Your task to perform on an android device: choose inbox layout in the gmail app Image 0: 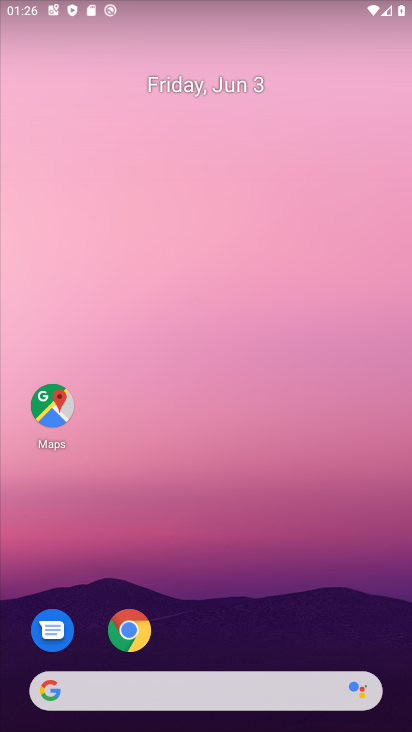
Step 0: drag from (232, 629) to (154, 138)
Your task to perform on an android device: choose inbox layout in the gmail app Image 1: 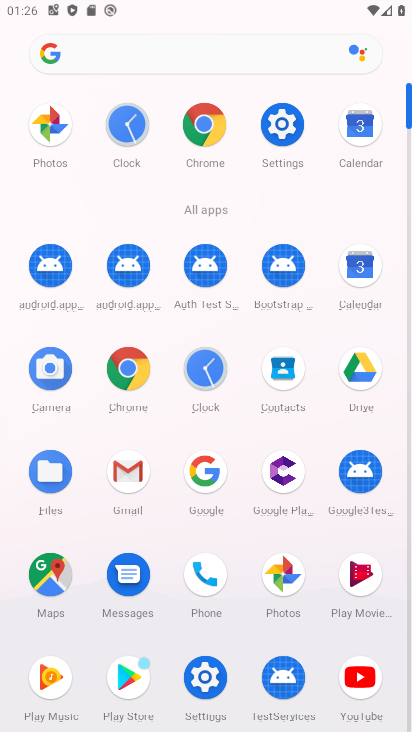
Step 1: click (143, 472)
Your task to perform on an android device: choose inbox layout in the gmail app Image 2: 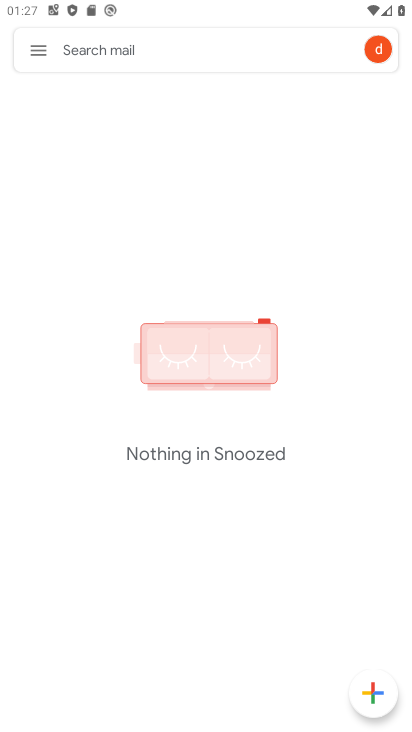
Step 2: click (46, 51)
Your task to perform on an android device: choose inbox layout in the gmail app Image 3: 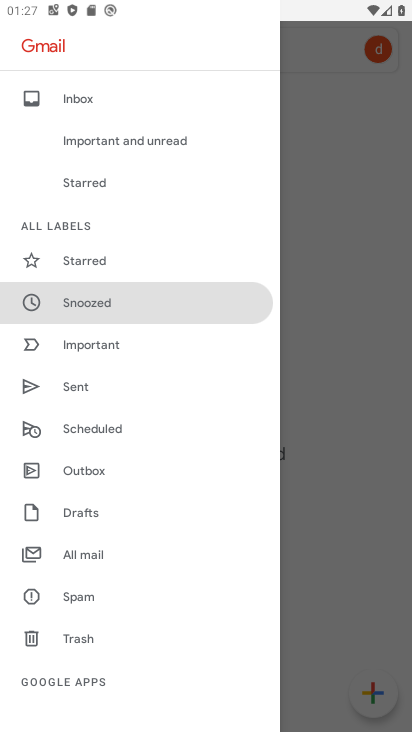
Step 3: drag from (120, 659) to (106, 307)
Your task to perform on an android device: choose inbox layout in the gmail app Image 4: 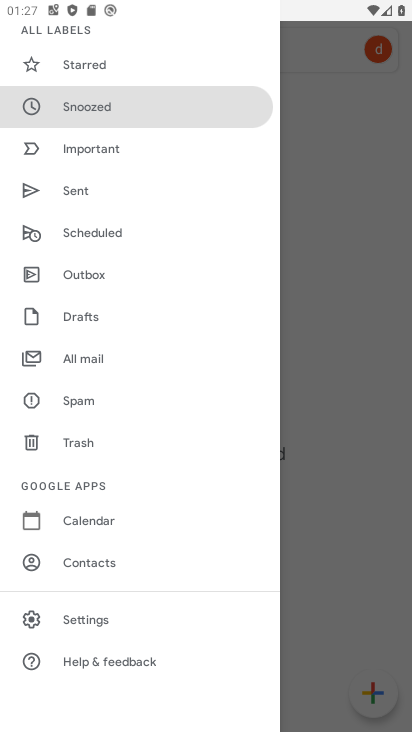
Step 4: click (88, 612)
Your task to perform on an android device: choose inbox layout in the gmail app Image 5: 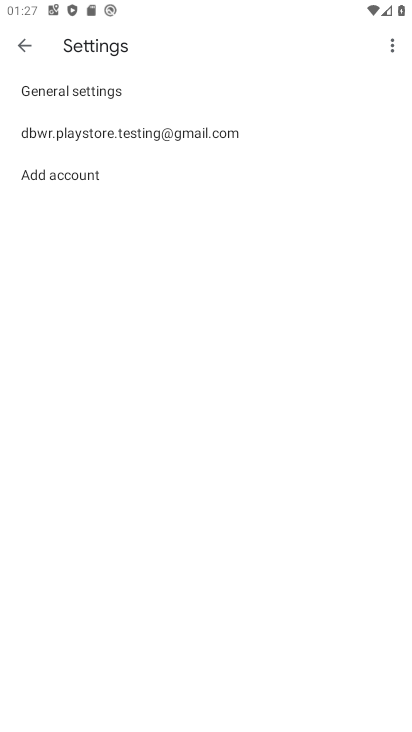
Step 5: click (219, 136)
Your task to perform on an android device: choose inbox layout in the gmail app Image 6: 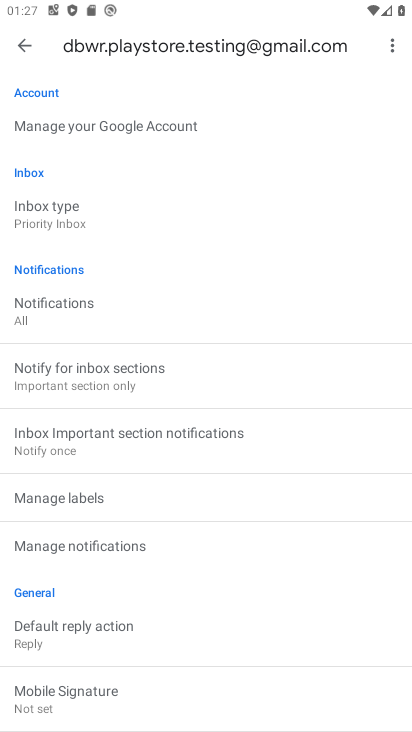
Step 6: click (172, 209)
Your task to perform on an android device: choose inbox layout in the gmail app Image 7: 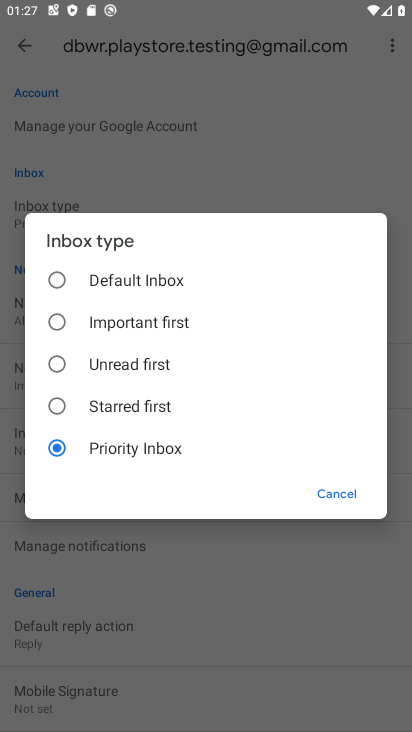
Step 7: click (171, 306)
Your task to perform on an android device: choose inbox layout in the gmail app Image 8: 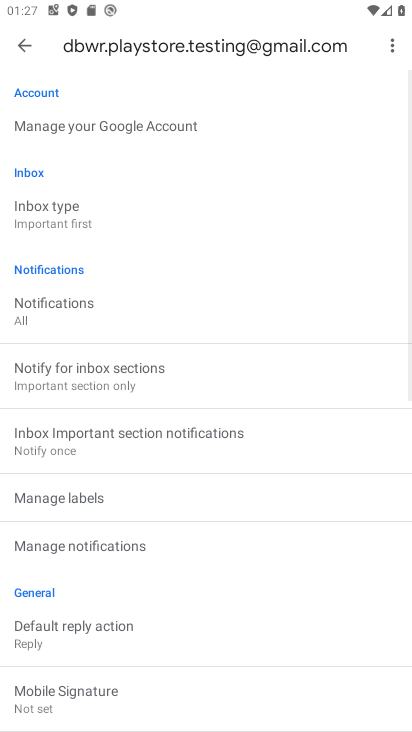
Step 8: task complete